Your task to perform on an android device: Go to calendar. Show me events next week Image 0: 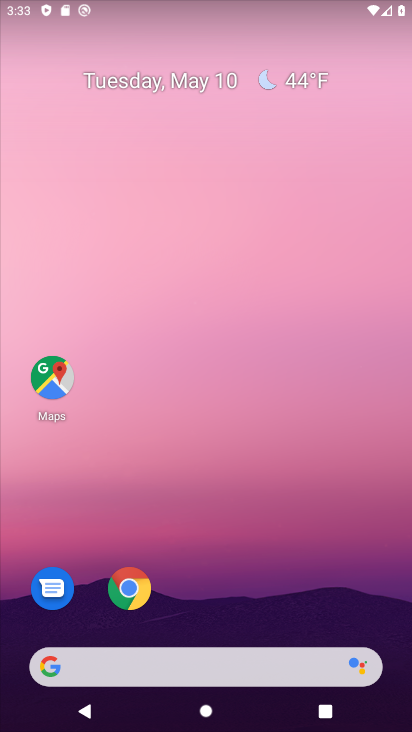
Step 0: drag from (249, 606) to (226, 108)
Your task to perform on an android device: Go to calendar. Show me events next week Image 1: 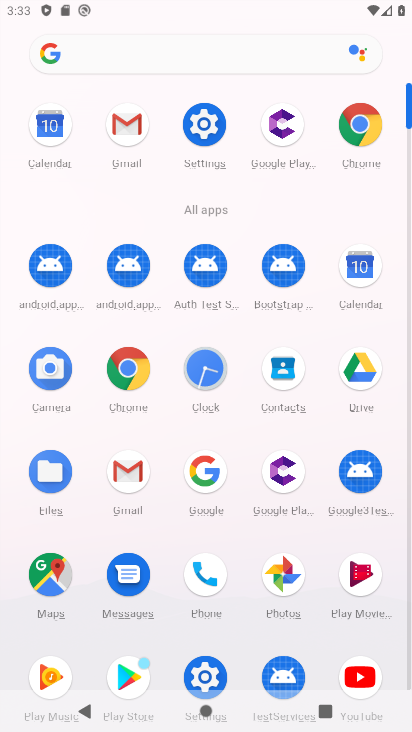
Step 1: click (366, 260)
Your task to perform on an android device: Go to calendar. Show me events next week Image 2: 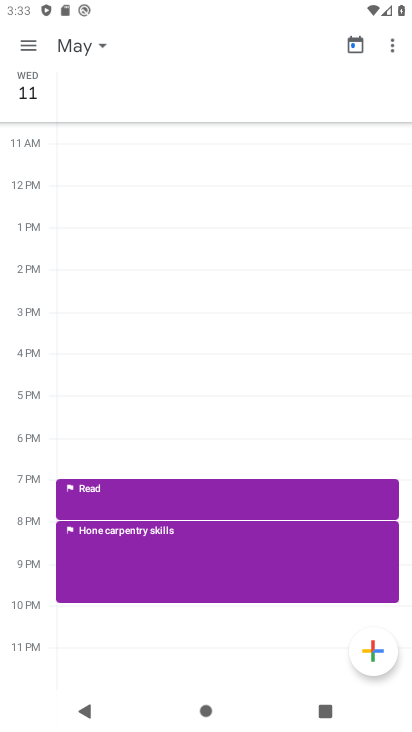
Step 2: click (24, 41)
Your task to perform on an android device: Go to calendar. Show me events next week Image 3: 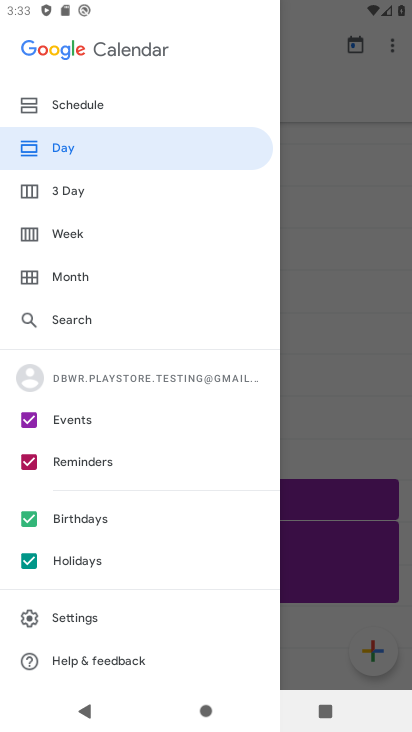
Step 3: click (63, 239)
Your task to perform on an android device: Go to calendar. Show me events next week Image 4: 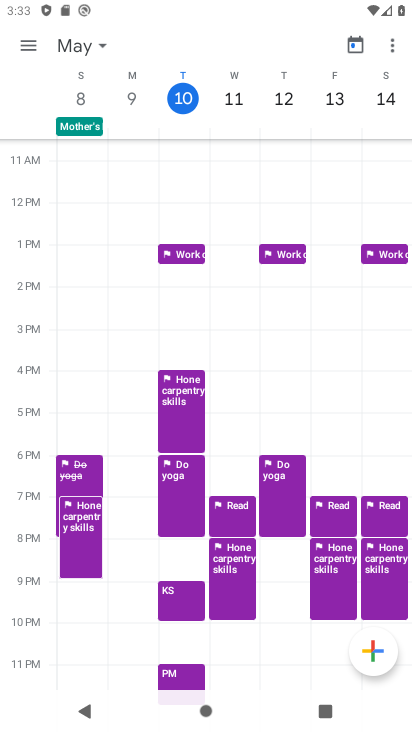
Step 4: click (94, 39)
Your task to perform on an android device: Go to calendar. Show me events next week Image 5: 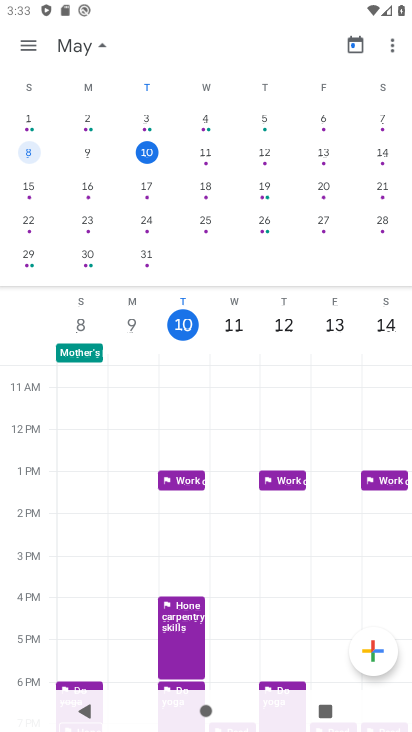
Step 5: click (30, 186)
Your task to perform on an android device: Go to calendar. Show me events next week Image 6: 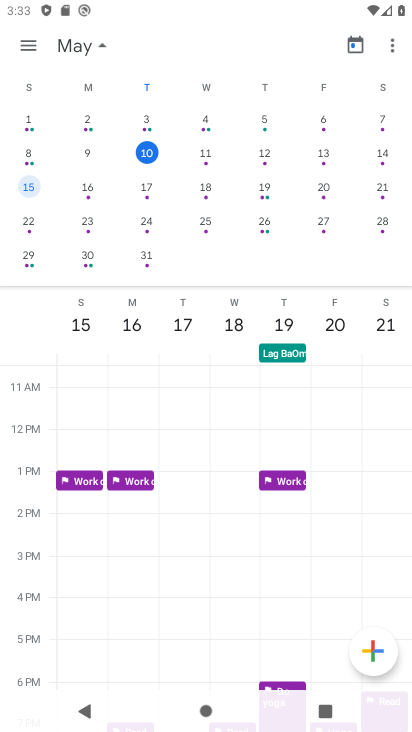
Step 6: click (84, 182)
Your task to perform on an android device: Go to calendar. Show me events next week Image 7: 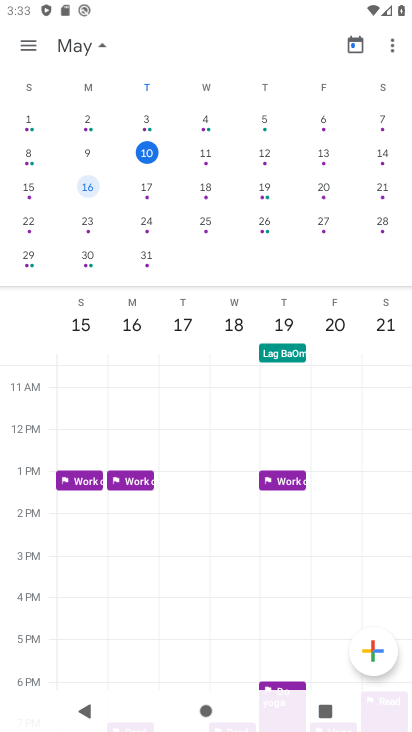
Step 7: task complete